Your task to perform on an android device: When is my next appointment? Image 0: 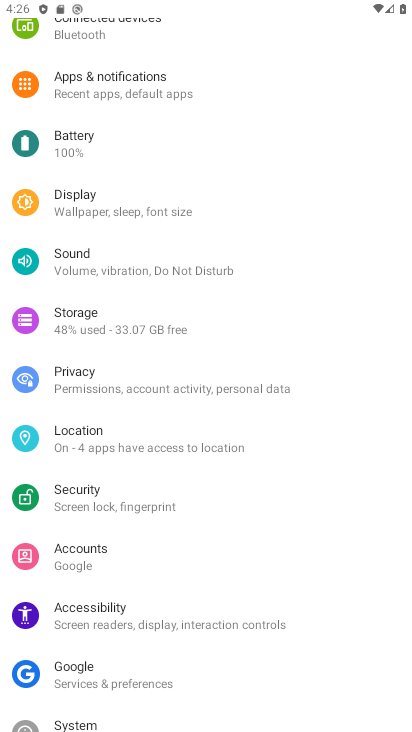
Step 0: press home button
Your task to perform on an android device: When is my next appointment? Image 1: 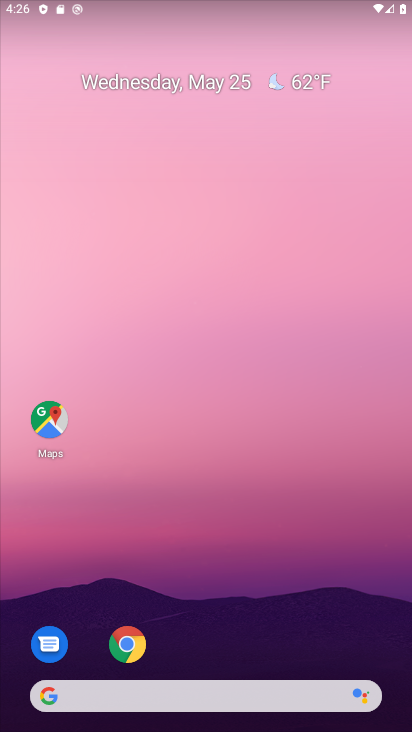
Step 1: drag from (183, 475) to (199, 173)
Your task to perform on an android device: When is my next appointment? Image 2: 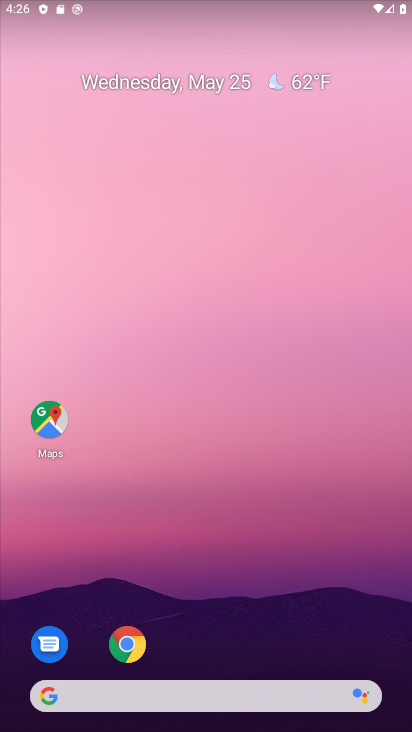
Step 2: drag from (199, 437) to (217, 199)
Your task to perform on an android device: When is my next appointment? Image 3: 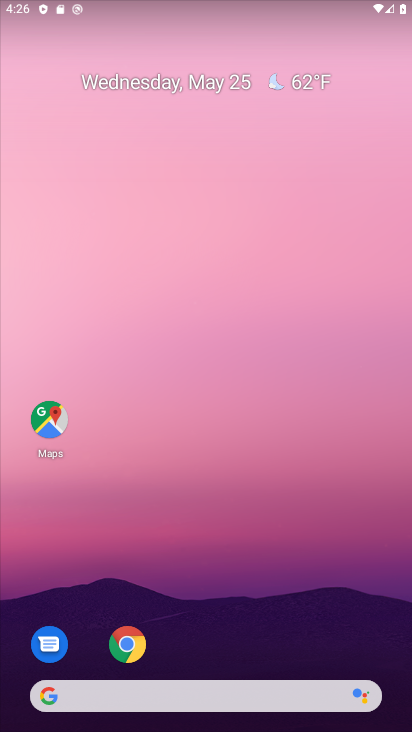
Step 3: drag from (214, 615) to (173, 79)
Your task to perform on an android device: When is my next appointment? Image 4: 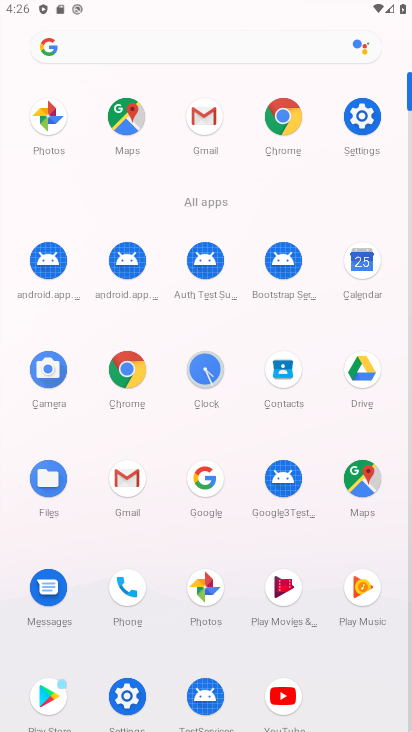
Step 4: click (362, 123)
Your task to perform on an android device: When is my next appointment? Image 5: 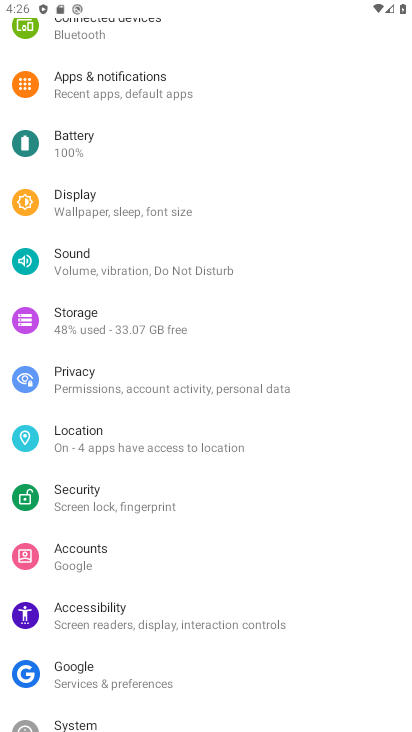
Step 5: press back button
Your task to perform on an android device: When is my next appointment? Image 6: 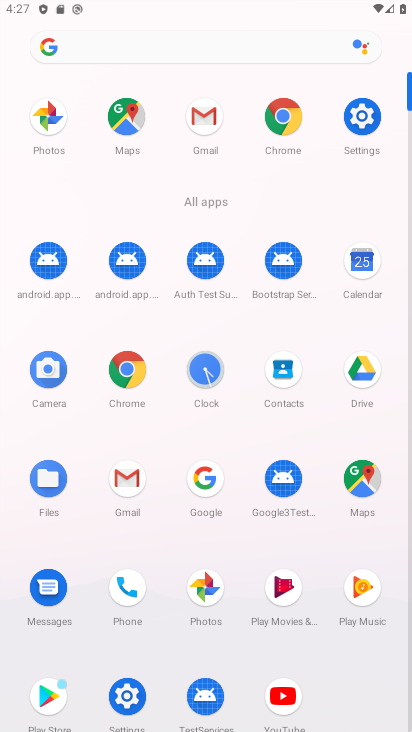
Step 6: click (369, 298)
Your task to perform on an android device: When is my next appointment? Image 7: 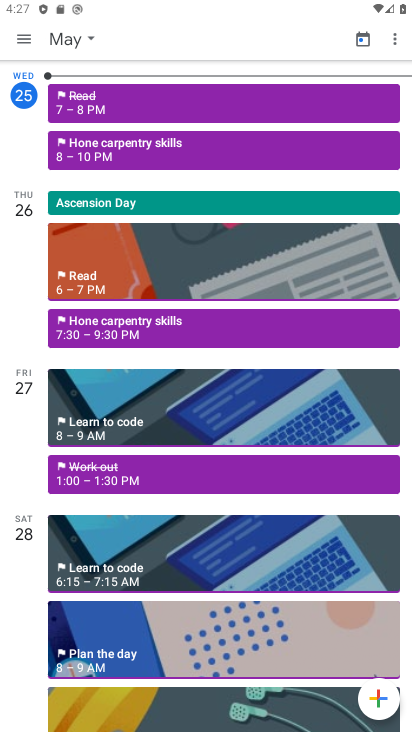
Step 7: task complete